Your task to perform on an android device: turn off data saver in the chrome app Image 0: 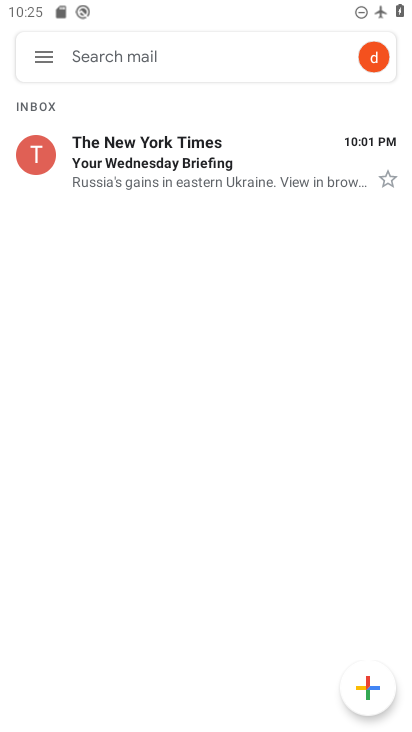
Step 0: press home button
Your task to perform on an android device: turn off data saver in the chrome app Image 1: 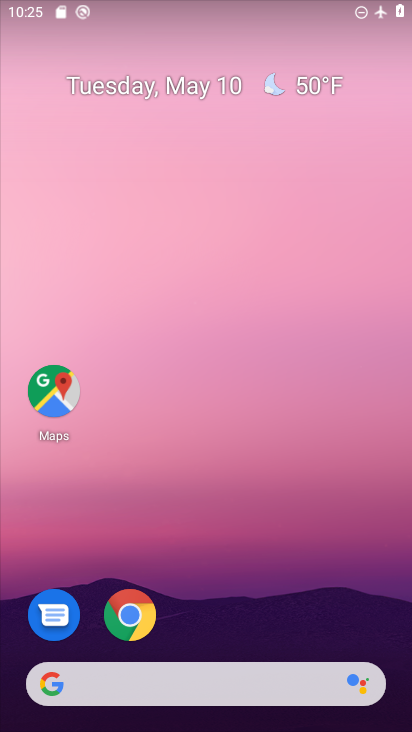
Step 1: click (130, 610)
Your task to perform on an android device: turn off data saver in the chrome app Image 2: 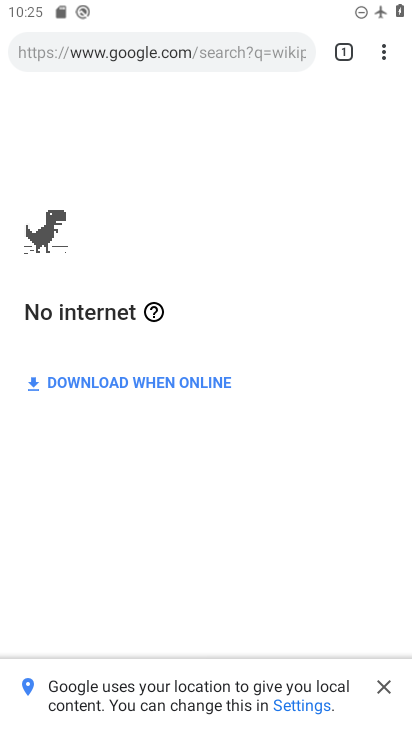
Step 2: click (379, 53)
Your task to perform on an android device: turn off data saver in the chrome app Image 3: 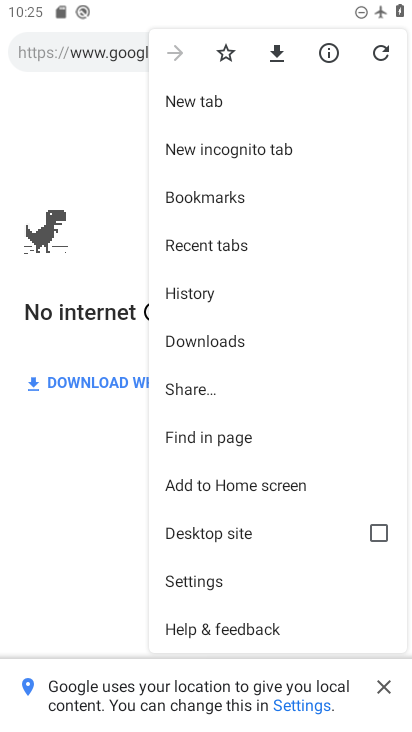
Step 3: click (198, 577)
Your task to perform on an android device: turn off data saver in the chrome app Image 4: 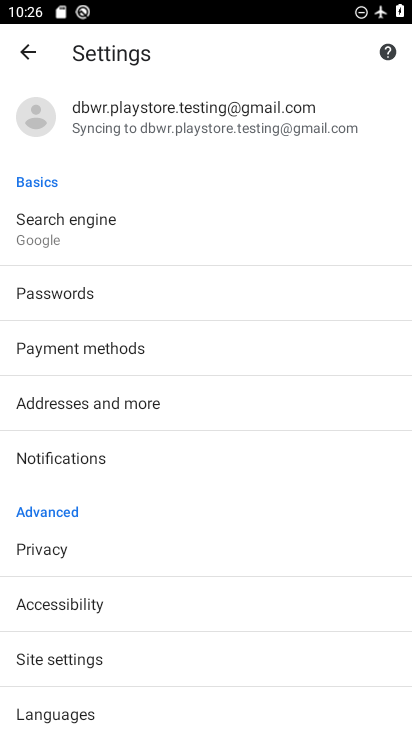
Step 4: task complete